Your task to perform on an android device: When is my next meeting? Image 0: 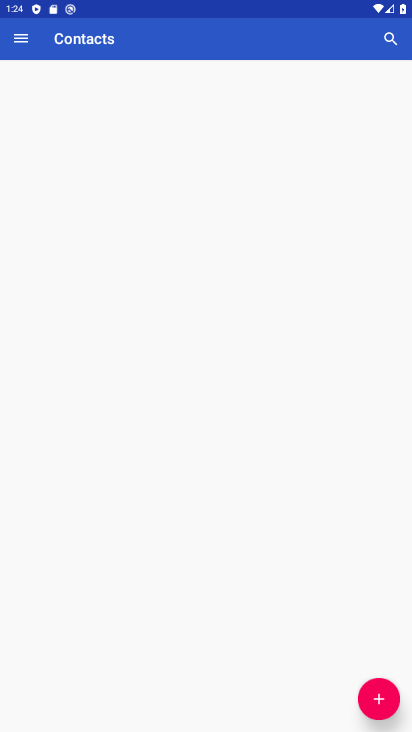
Step 0: drag from (254, 595) to (285, 154)
Your task to perform on an android device: When is my next meeting? Image 1: 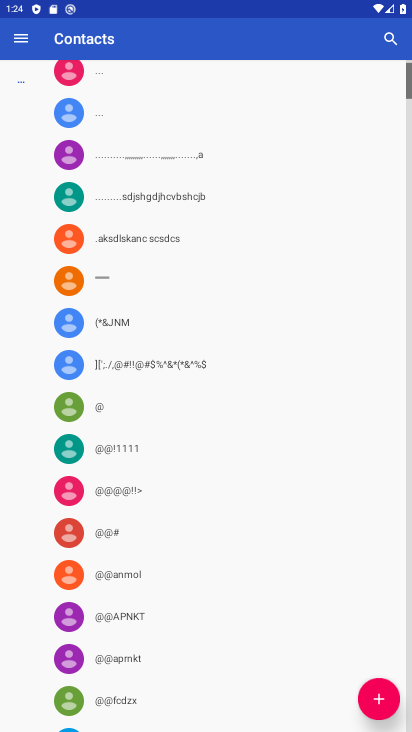
Step 1: press home button
Your task to perform on an android device: When is my next meeting? Image 2: 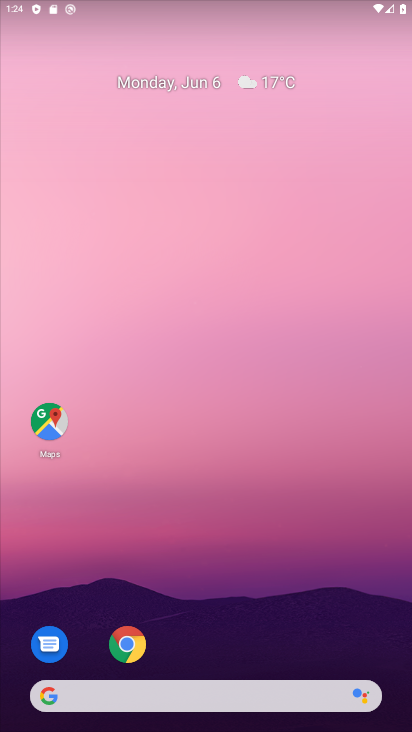
Step 2: drag from (351, 597) to (298, 94)
Your task to perform on an android device: When is my next meeting? Image 3: 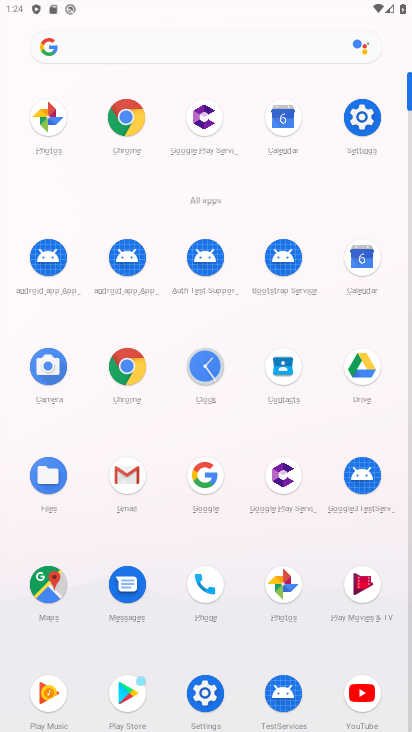
Step 3: click (364, 252)
Your task to perform on an android device: When is my next meeting? Image 4: 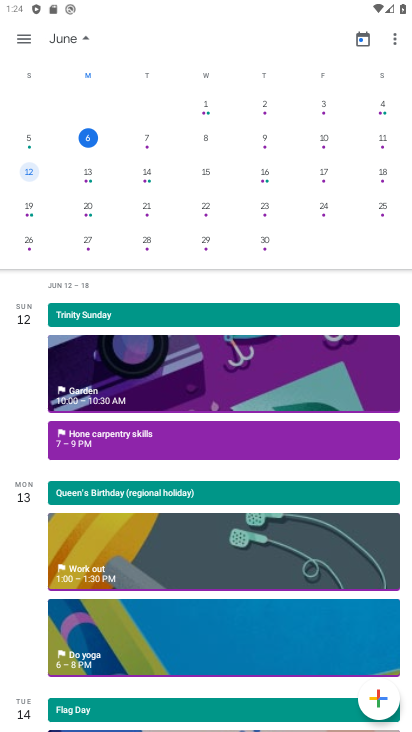
Step 4: task complete